Your task to perform on an android device: turn on the 12-hour format for clock Image 0: 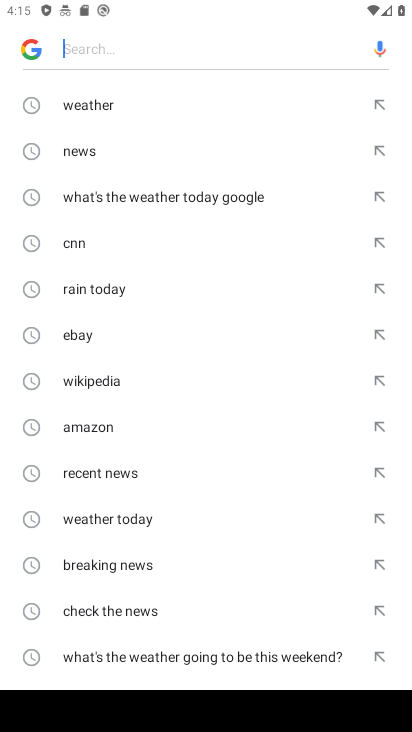
Step 0: press back button
Your task to perform on an android device: turn on the 12-hour format for clock Image 1: 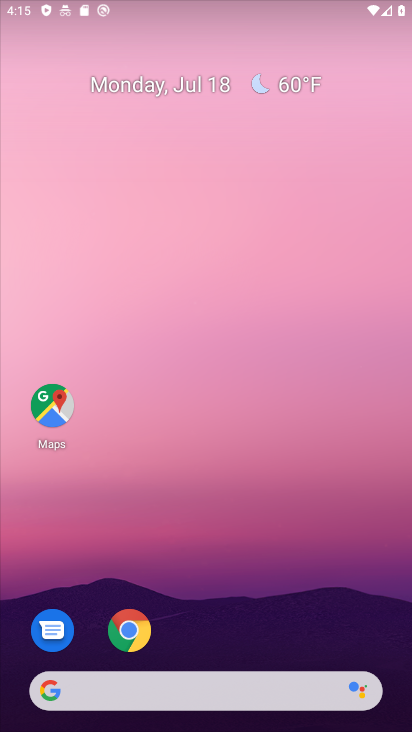
Step 1: drag from (225, 570) to (156, 183)
Your task to perform on an android device: turn on the 12-hour format for clock Image 2: 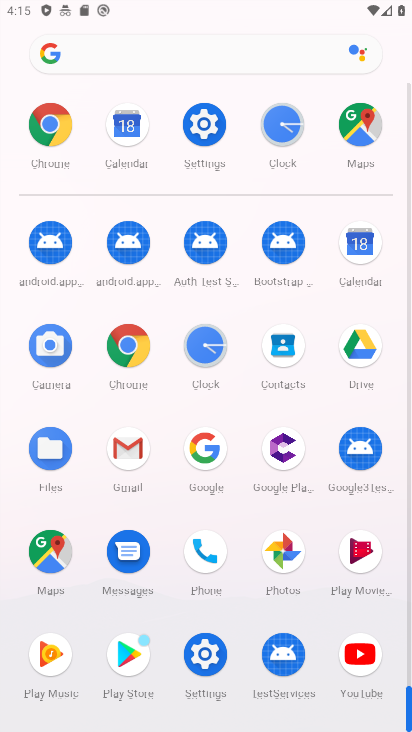
Step 2: click (212, 333)
Your task to perform on an android device: turn on the 12-hour format for clock Image 3: 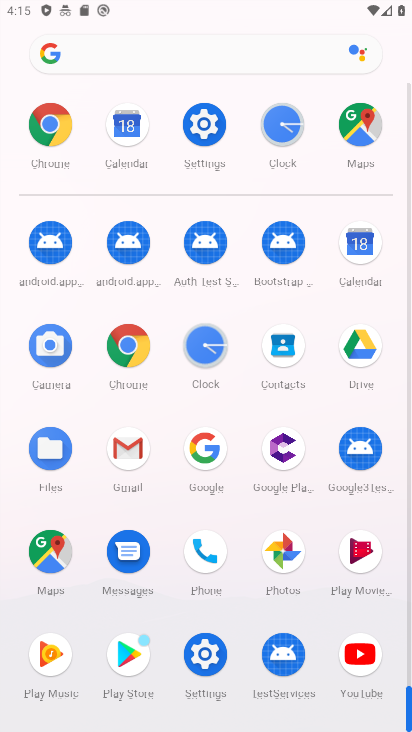
Step 3: click (212, 333)
Your task to perform on an android device: turn on the 12-hour format for clock Image 4: 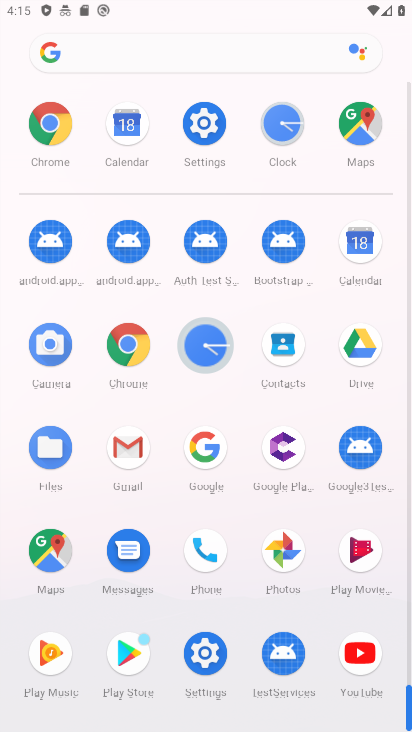
Step 4: click (212, 333)
Your task to perform on an android device: turn on the 12-hour format for clock Image 5: 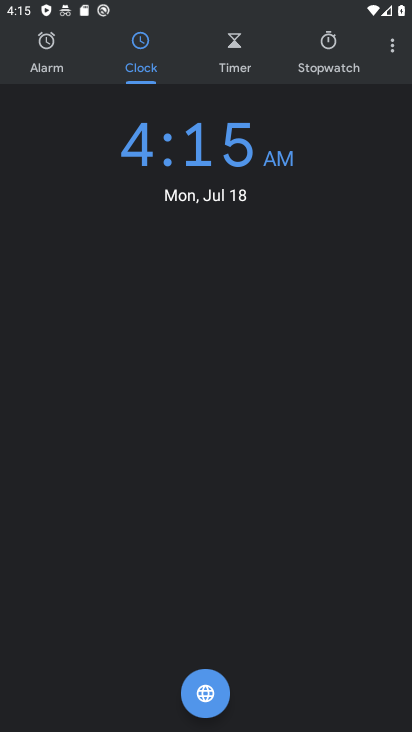
Step 5: click (386, 42)
Your task to perform on an android device: turn on the 12-hour format for clock Image 6: 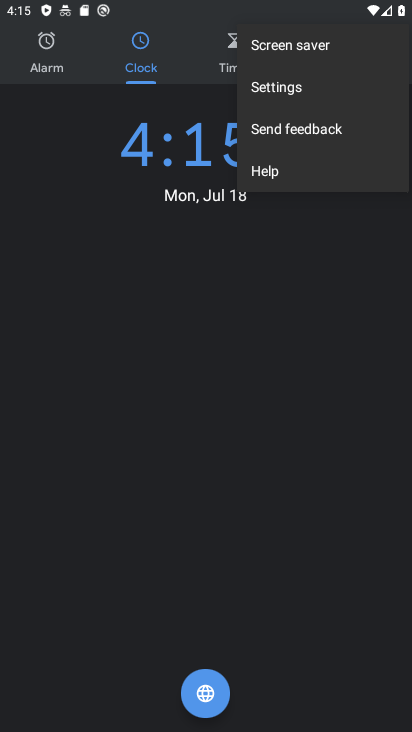
Step 6: click (265, 87)
Your task to perform on an android device: turn on the 12-hour format for clock Image 7: 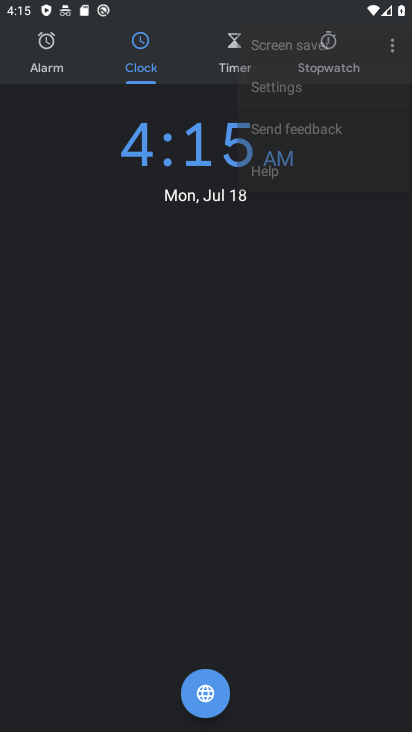
Step 7: click (269, 79)
Your task to perform on an android device: turn on the 12-hour format for clock Image 8: 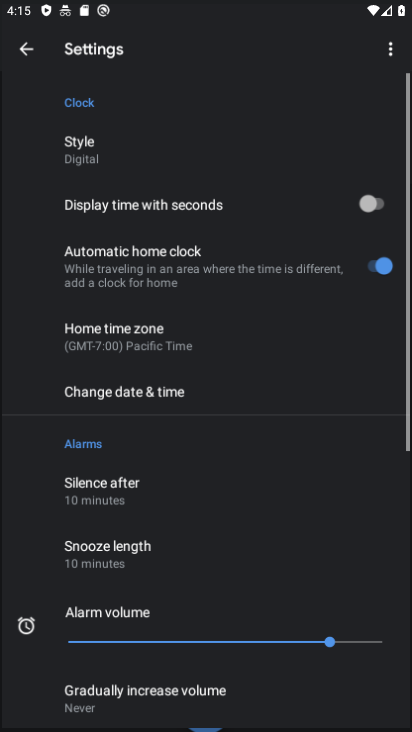
Step 8: click (269, 77)
Your task to perform on an android device: turn on the 12-hour format for clock Image 9: 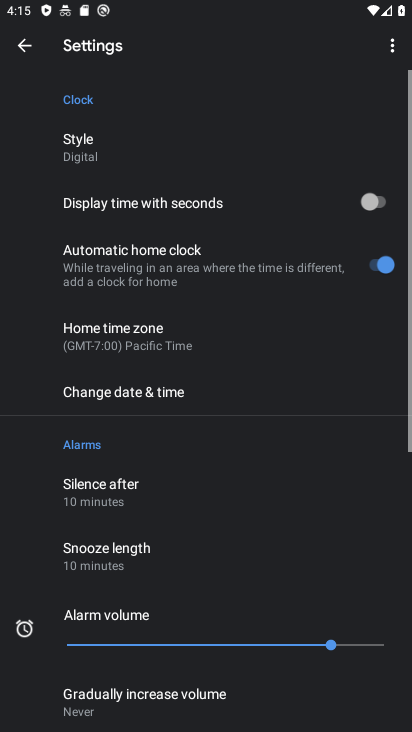
Step 9: click (269, 77)
Your task to perform on an android device: turn on the 12-hour format for clock Image 10: 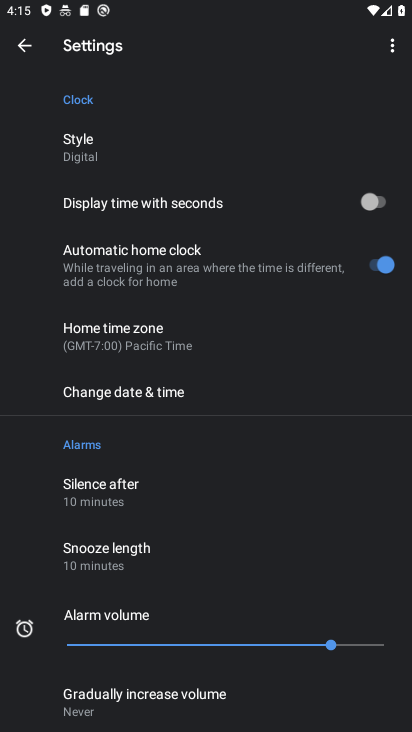
Step 10: click (151, 337)
Your task to perform on an android device: turn on the 12-hour format for clock Image 11: 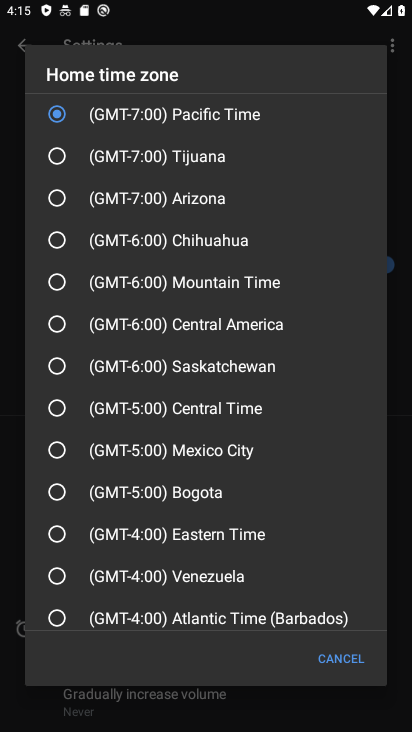
Step 11: click (338, 664)
Your task to perform on an android device: turn on the 12-hour format for clock Image 12: 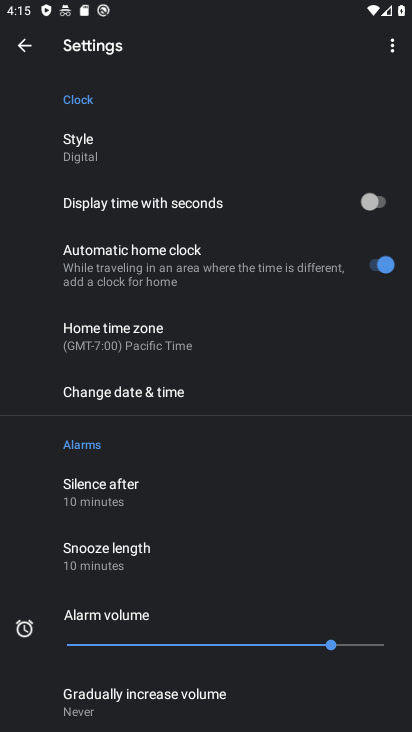
Step 12: click (156, 394)
Your task to perform on an android device: turn on the 12-hour format for clock Image 13: 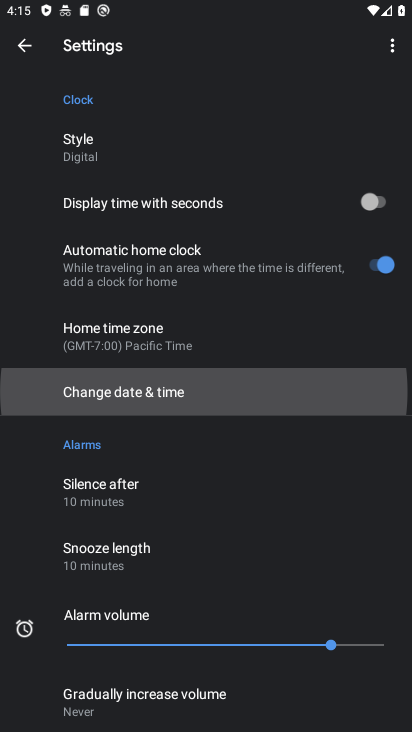
Step 13: click (156, 394)
Your task to perform on an android device: turn on the 12-hour format for clock Image 14: 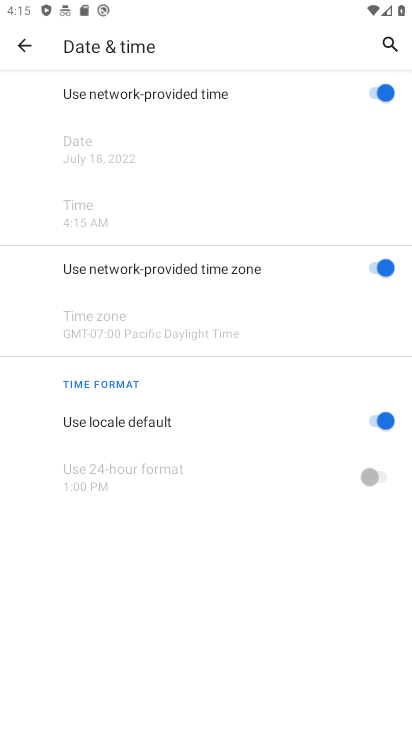
Step 14: task complete